Your task to perform on an android device: read, delete, or share a saved page in the chrome app Image 0: 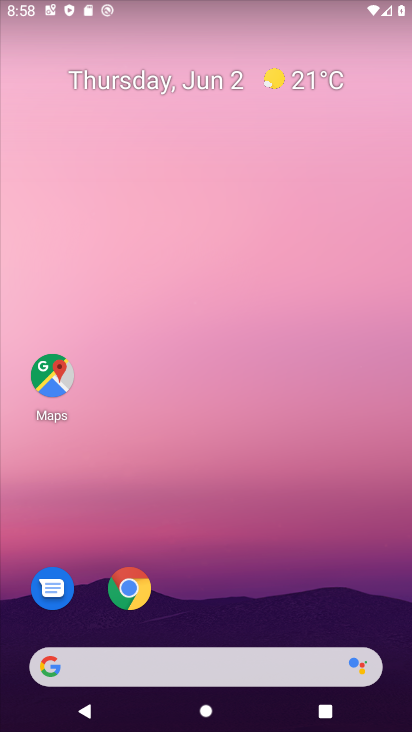
Step 0: press home button
Your task to perform on an android device: read, delete, or share a saved page in the chrome app Image 1: 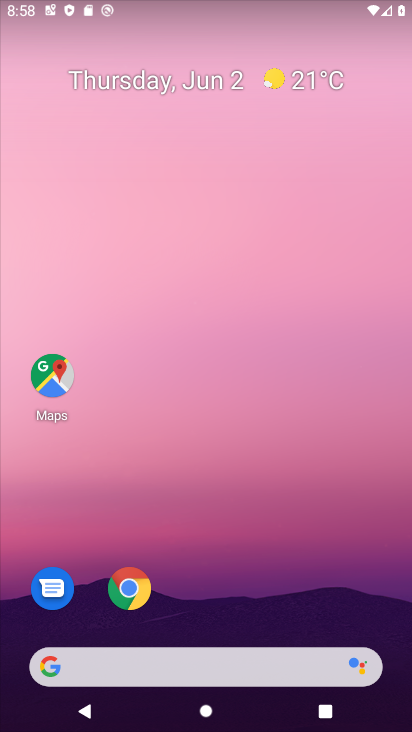
Step 1: click (151, 591)
Your task to perform on an android device: read, delete, or share a saved page in the chrome app Image 2: 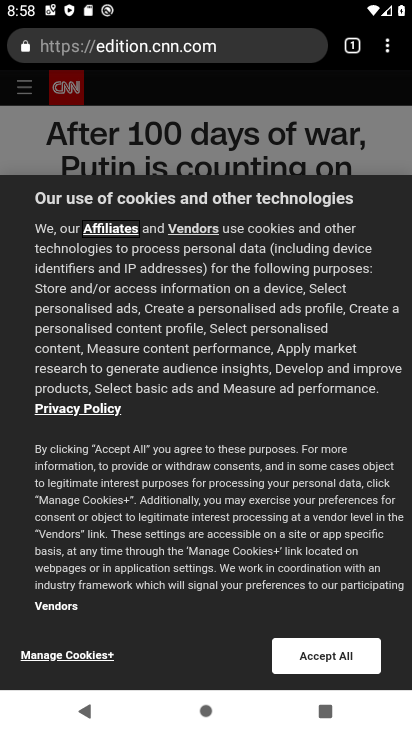
Step 2: click (382, 54)
Your task to perform on an android device: read, delete, or share a saved page in the chrome app Image 3: 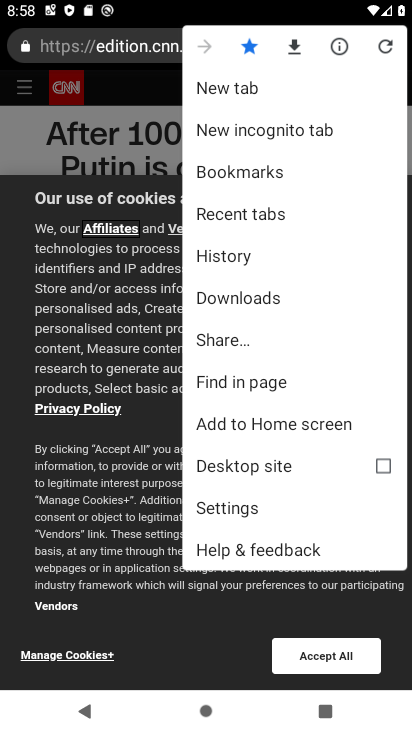
Step 3: click (240, 304)
Your task to perform on an android device: read, delete, or share a saved page in the chrome app Image 4: 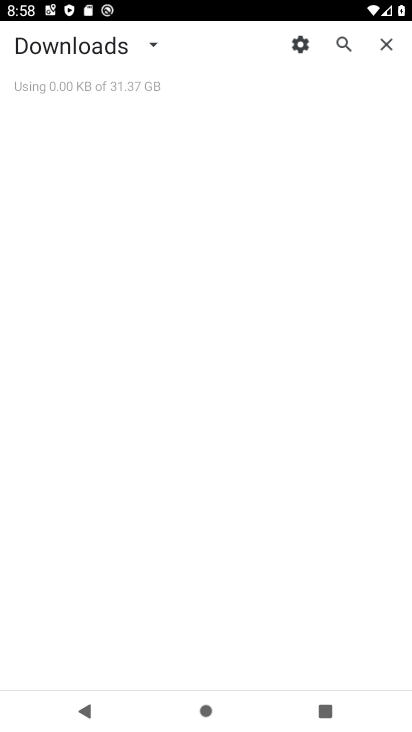
Step 4: click (144, 49)
Your task to perform on an android device: read, delete, or share a saved page in the chrome app Image 5: 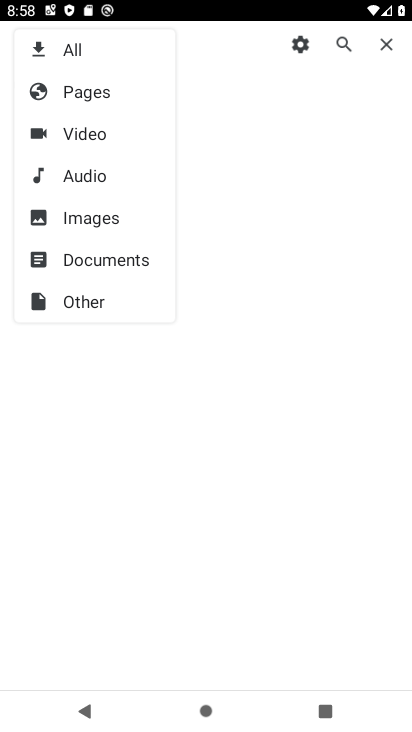
Step 5: click (69, 98)
Your task to perform on an android device: read, delete, or share a saved page in the chrome app Image 6: 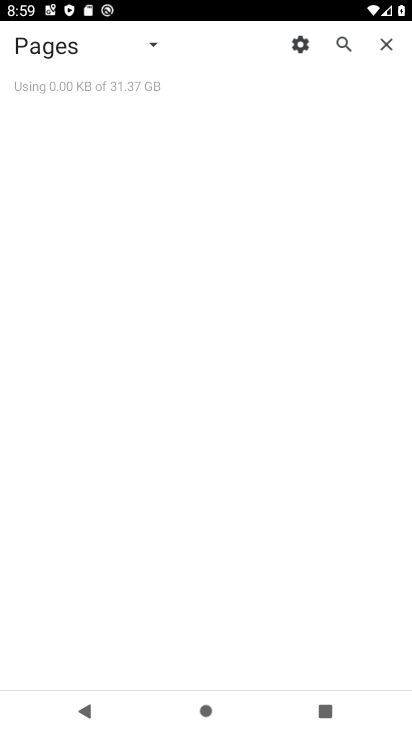
Step 6: task complete